Your task to perform on an android device: check google app version Image 0: 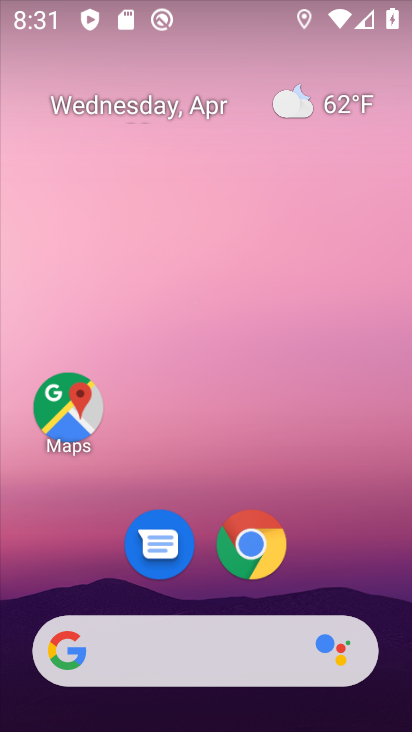
Step 0: drag from (324, 538) to (146, 16)
Your task to perform on an android device: check google app version Image 1: 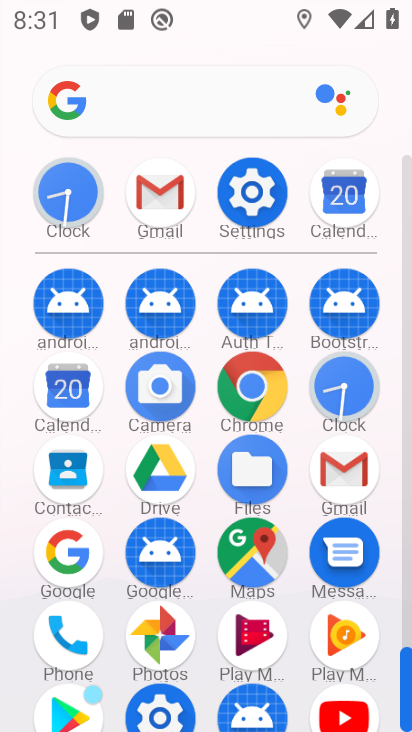
Step 1: click (77, 568)
Your task to perform on an android device: check google app version Image 2: 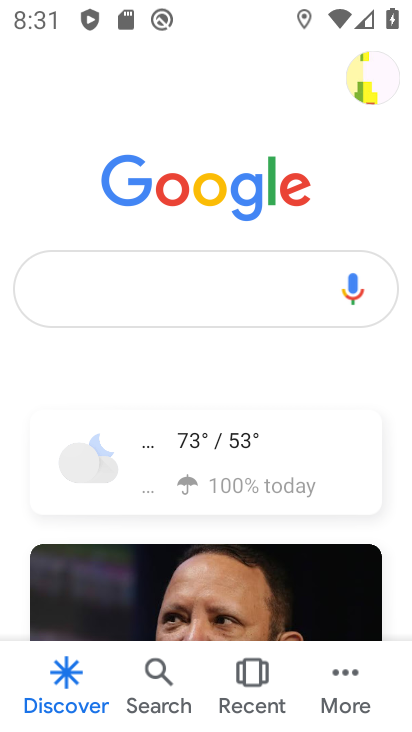
Step 2: click (372, 668)
Your task to perform on an android device: check google app version Image 3: 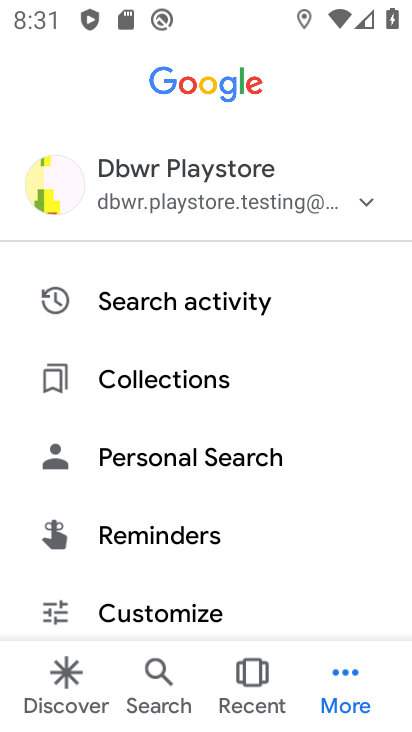
Step 3: drag from (158, 595) to (132, 158)
Your task to perform on an android device: check google app version Image 4: 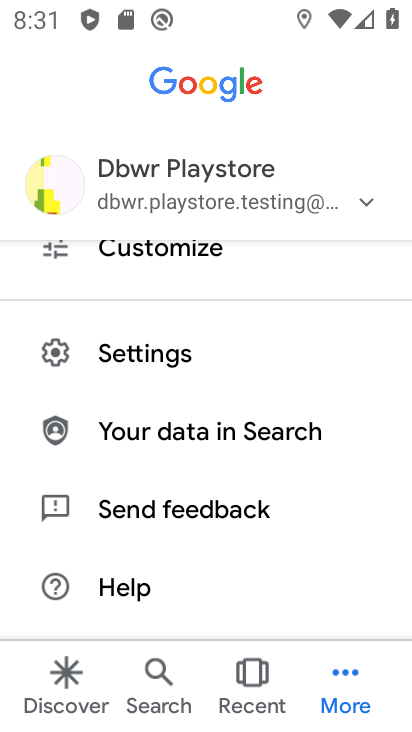
Step 4: click (132, 346)
Your task to perform on an android device: check google app version Image 5: 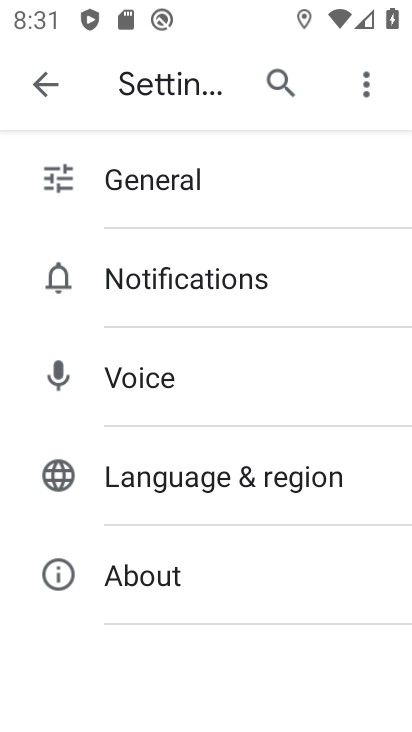
Step 5: click (148, 569)
Your task to perform on an android device: check google app version Image 6: 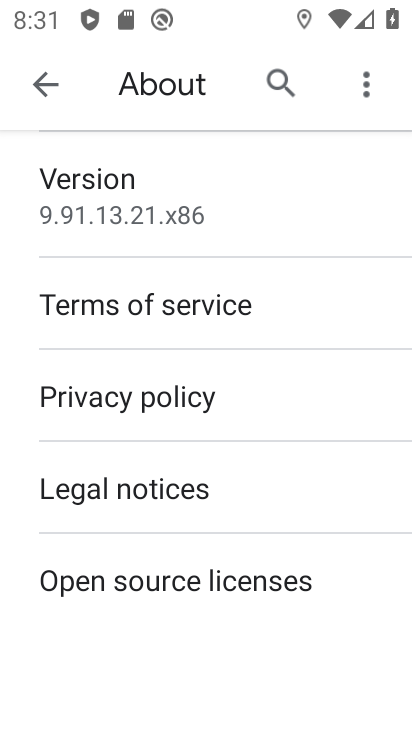
Step 6: click (95, 199)
Your task to perform on an android device: check google app version Image 7: 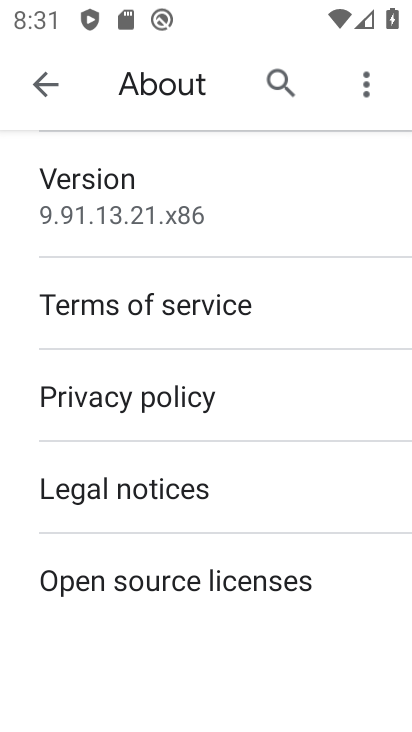
Step 7: task complete